Your task to perform on an android device: Go to accessibility settings Image 0: 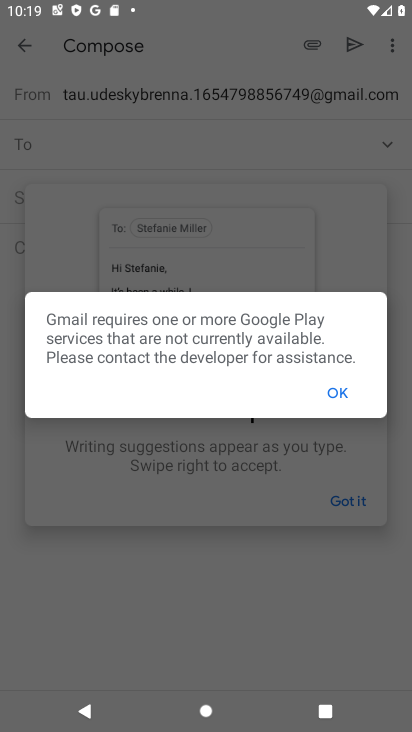
Step 0: press home button
Your task to perform on an android device: Go to accessibility settings Image 1: 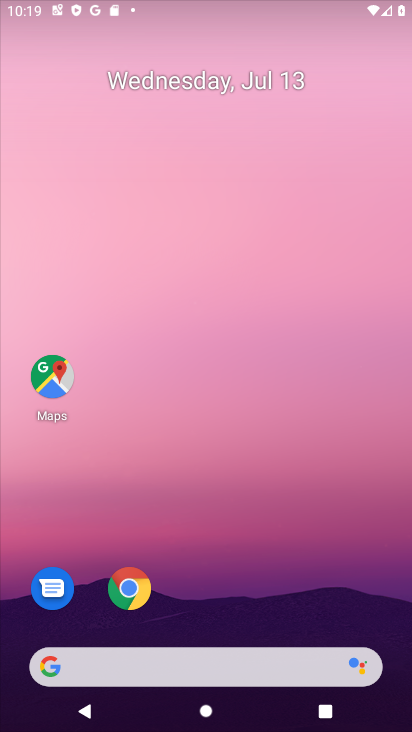
Step 1: drag from (225, 619) to (224, 95)
Your task to perform on an android device: Go to accessibility settings Image 2: 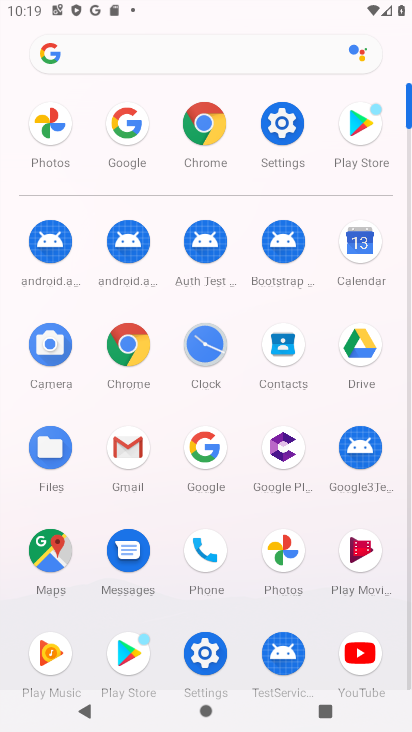
Step 2: click (284, 124)
Your task to perform on an android device: Go to accessibility settings Image 3: 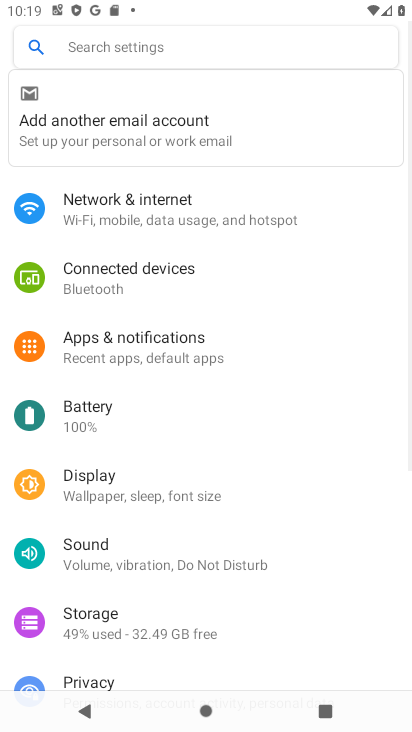
Step 3: drag from (239, 587) to (235, 83)
Your task to perform on an android device: Go to accessibility settings Image 4: 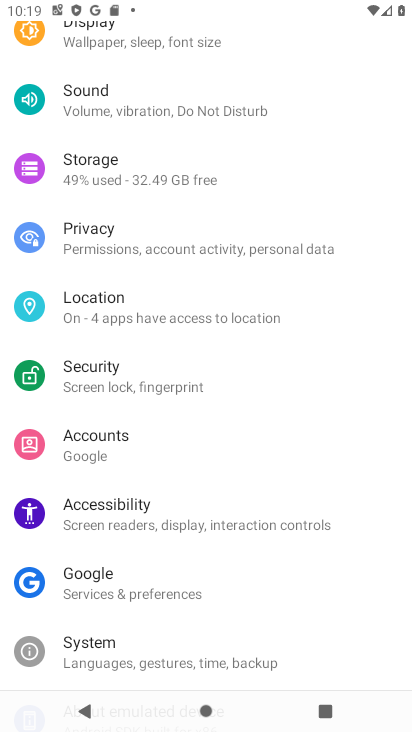
Step 4: click (135, 515)
Your task to perform on an android device: Go to accessibility settings Image 5: 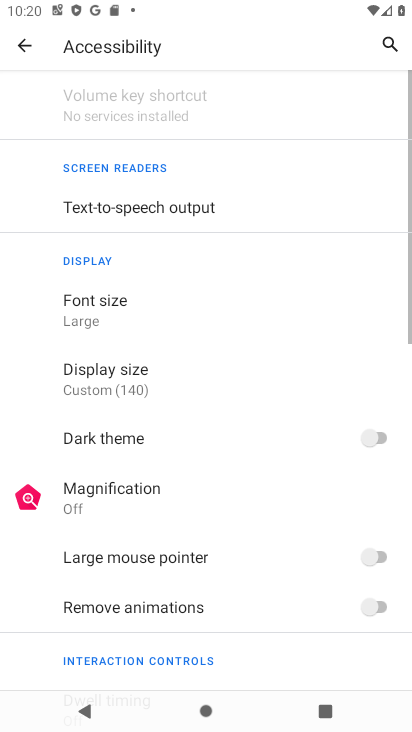
Step 5: task complete